Your task to perform on an android device: change text size in settings app Image 0: 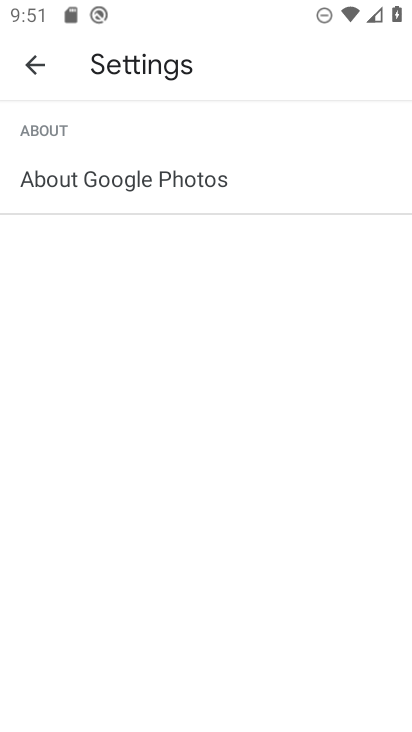
Step 0: press home button
Your task to perform on an android device: change text size in settings app Image 1: 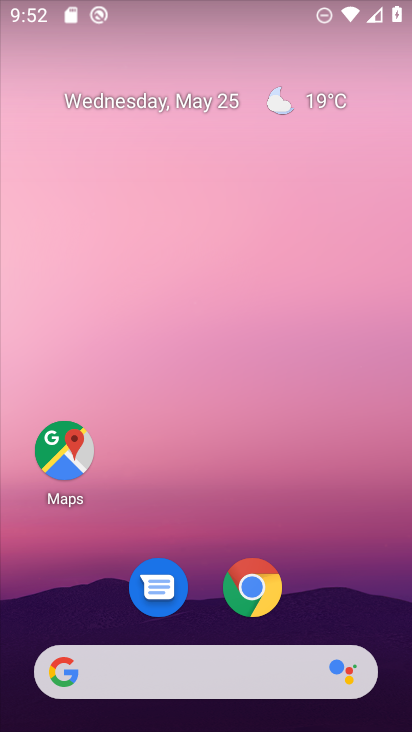
Step 1: drag from (376, 566) to (324, 10)
Your task to perform on an android device: change text size in settings app Image 2: 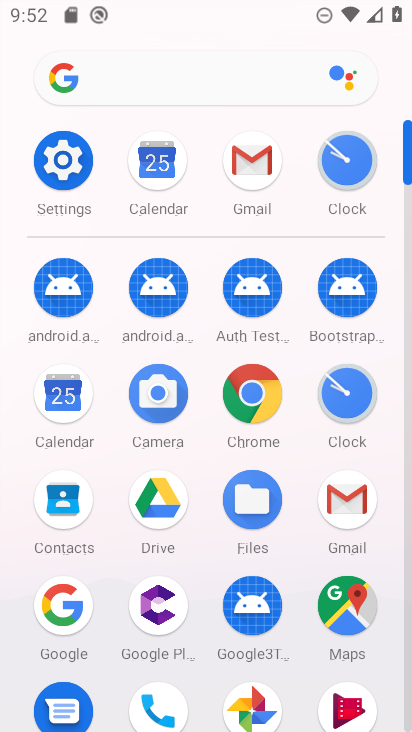
Step 2: click (409, 689)
Your task to perform on an android device: change text size in settings app Image 3: 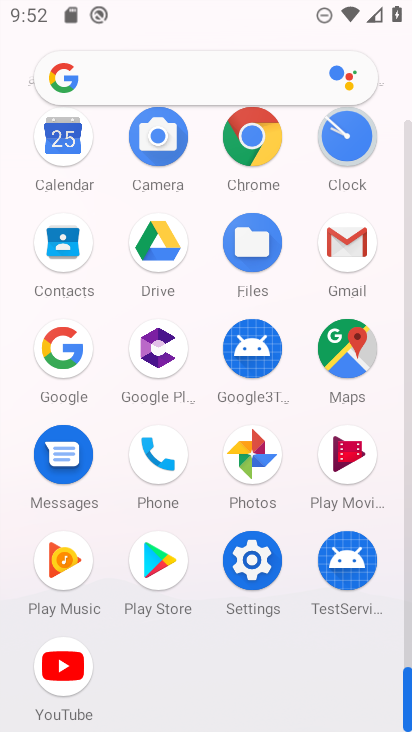
Step 3: click (248, 560)
Your task to perform on an android device: change text size in settings app Image 4: 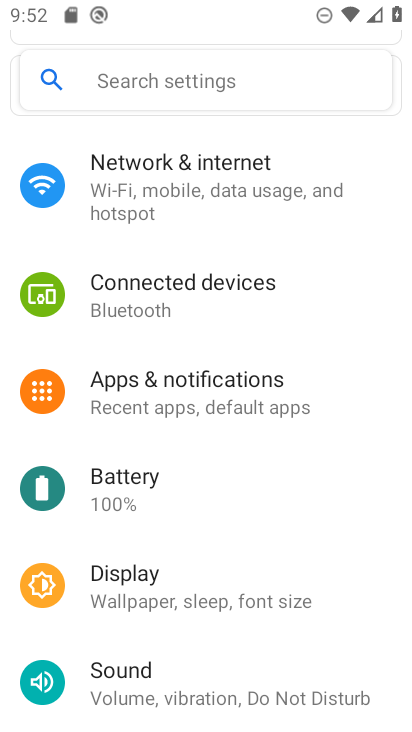
Step 4: click (146, 586)
Your task to perform on an android device: change text size in settings app Image 5: 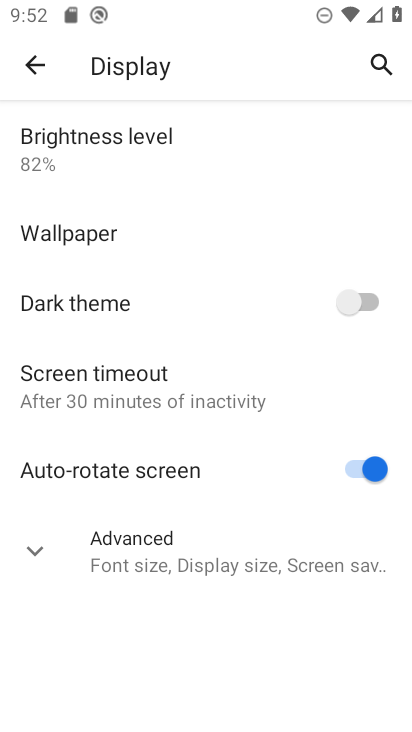
Step 5: click (27, 536)
Your task to perform on an android device: change text size in settings app Image 6: 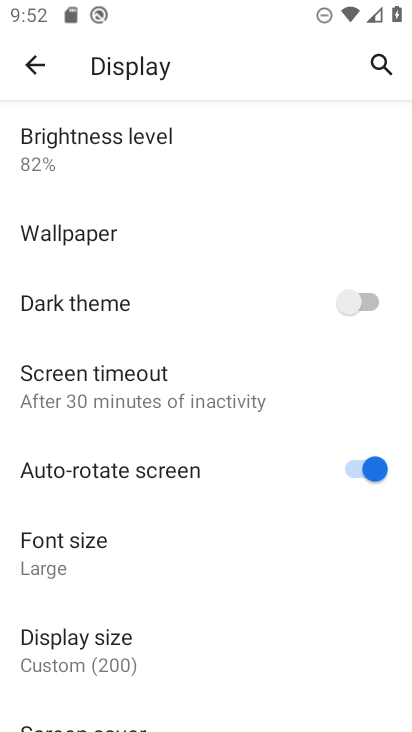
Step 6: click (69, 553)
Your task to perform on an android device: change text size in settings app Image 7: 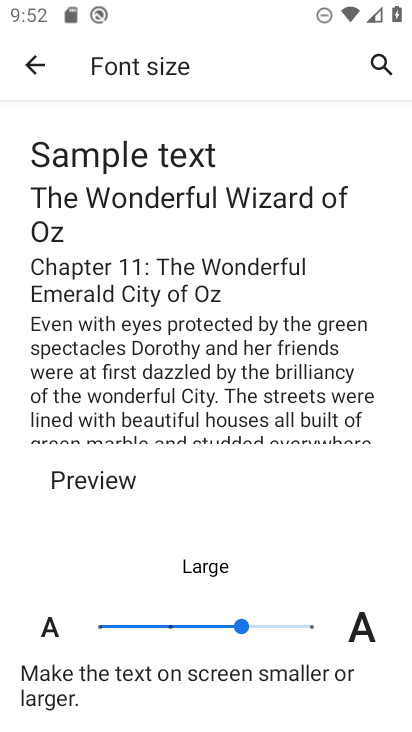
Step 7: click (170, 624)
Your task to perform on an android device: change text size in settings app Image 8: 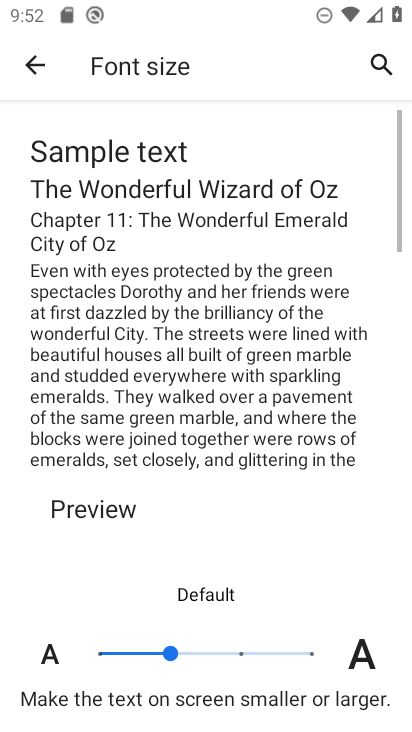
Step 8: task complete